Your task to perform on an android device: turn notification dots on Image 0: 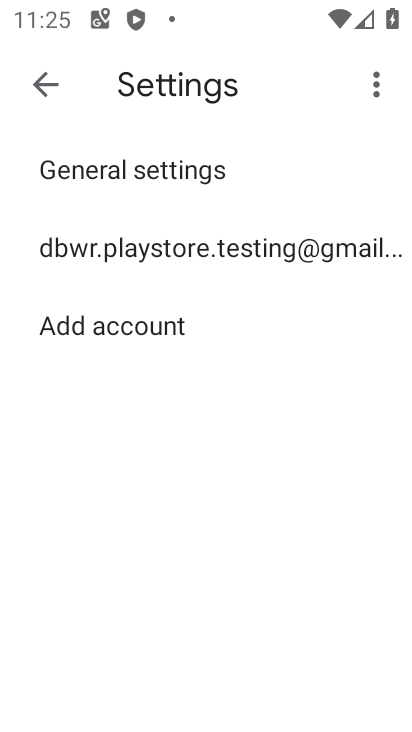
Step 0: press home button
Your task to perform on an android device: turn notification dots on Image 1: 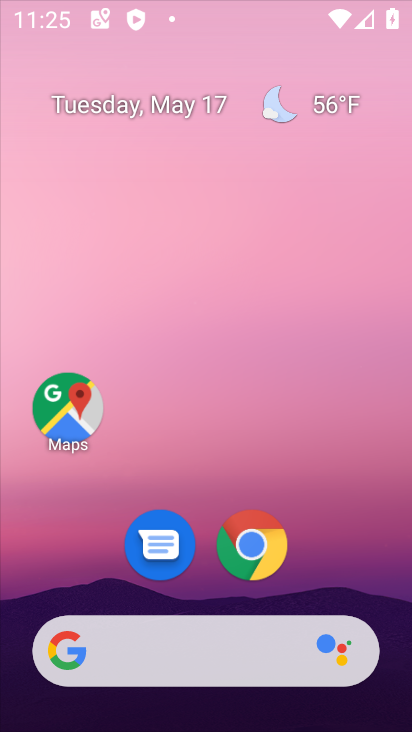
Step 1: drag from (197, 677) to (244, 149)
Your task to perform on an android device: turn notification dots on Image 2: 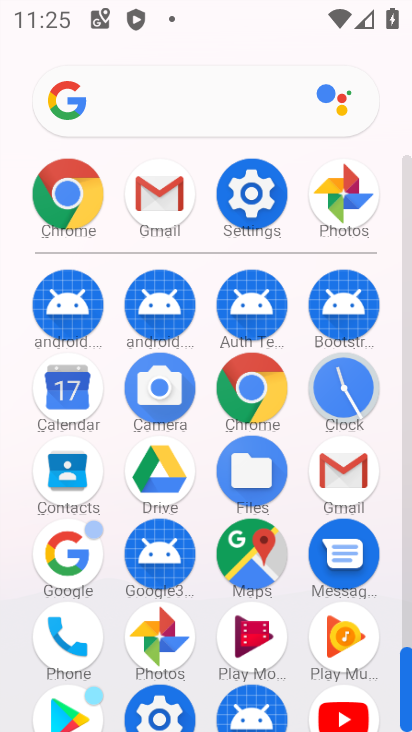
Step 2: click (242, 205)
Your task to perform on an android device: turn notification dots on Image 3: 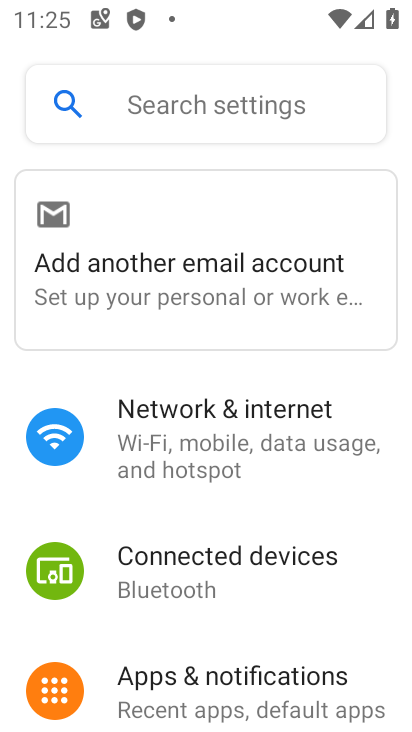
Step 3: drag from (185, 497) to (200, 16)
Your task to perform on an android device: turn notification dots on Image 4: 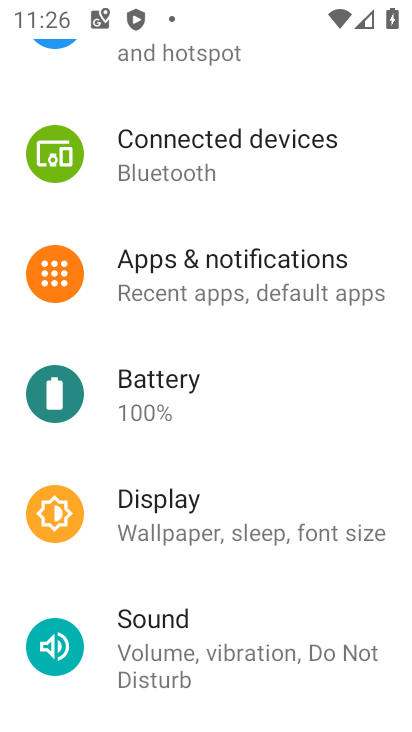
Step 4: click (333, 307)
Your task to perform on an android device: turn notification dots on Image 5: 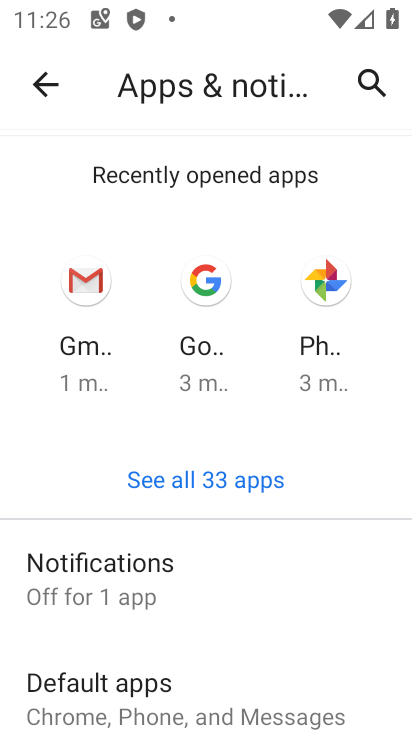
Step 5: click (89, 584)
Your task to perform on an android device: turn notification dots on Image 6: 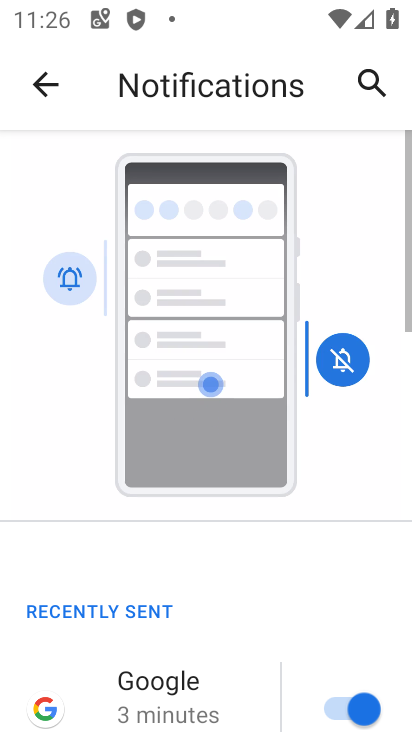
Step 6: drag from (118, 565) to (173, 161)
Your task to perform on an android device: turn notification dots on Image 7: 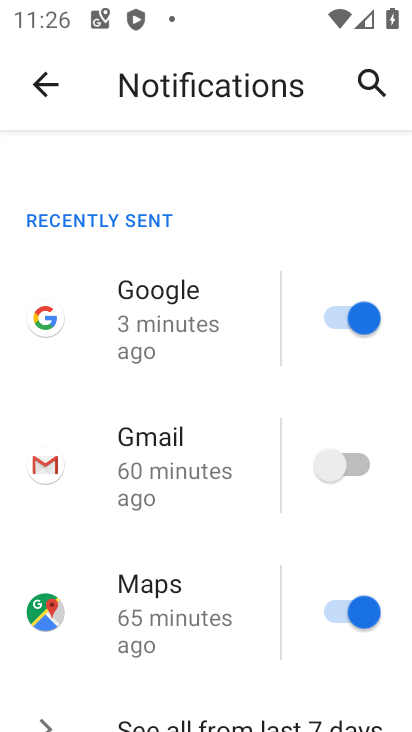
Step 7: drag from (122, 507) to (207, 114)
Your task to perform on an android device: turn notification dots on Image 8: 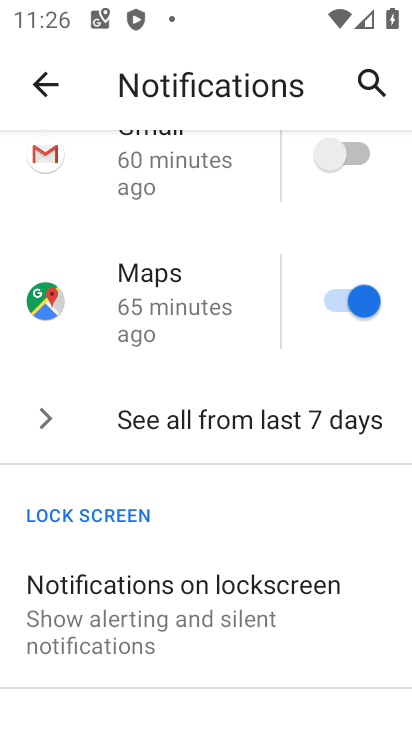
Step 8: drag from (220, 505) to (279, 180)
Your task to perform on an android device: turn notification dots on Image 9: 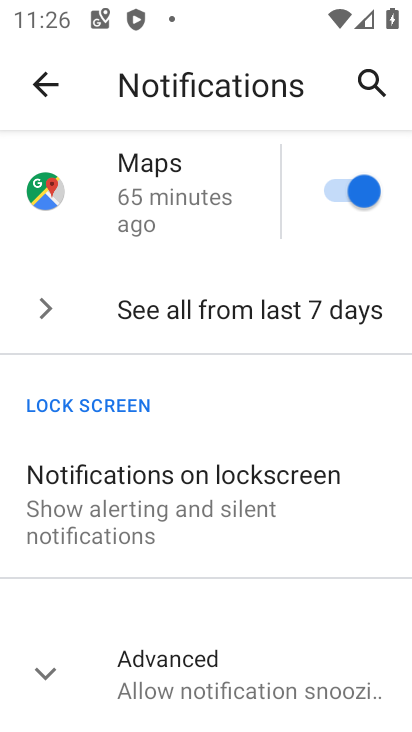
Step 9: click (119, 665)
Your task to perform on an android device: turn notification dots on Image 10: 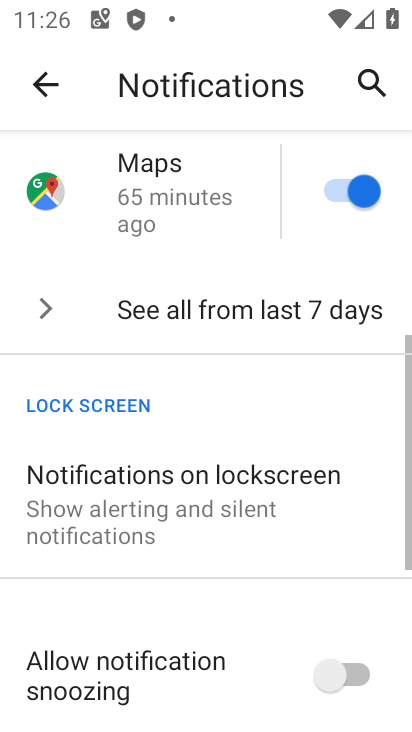
Step 10: task complete